Your task to perform on an android device: Go to calendar. Show me events next week Image 0: 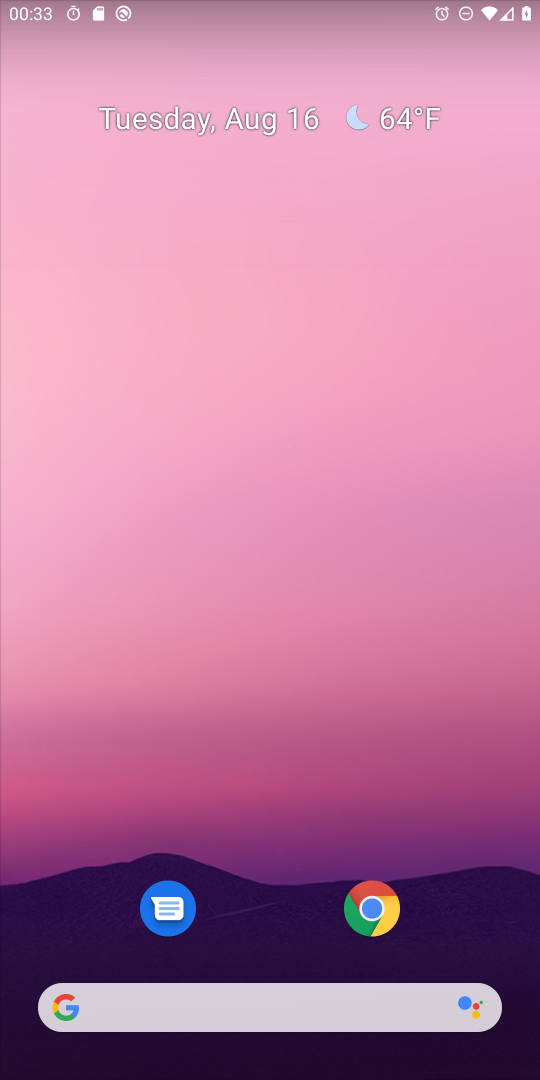
Step 0: click (250, 144)
Your task to perform on an android device: Go to calendar. Show me events next week Image 1: 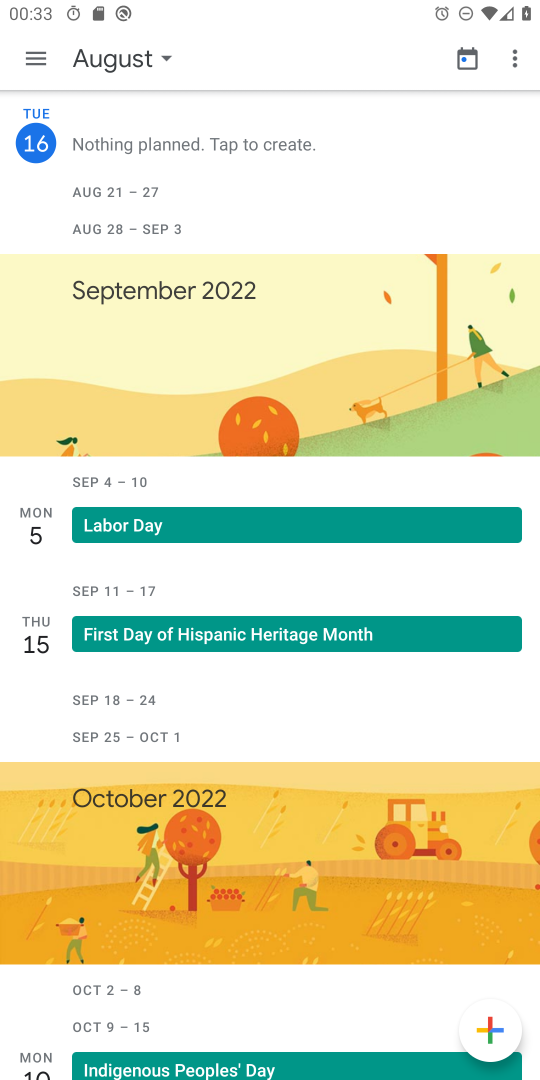
Step 1: click (128, 88)
Your task to perform on an android device: Go to calendar. Show me events next week Image 2: 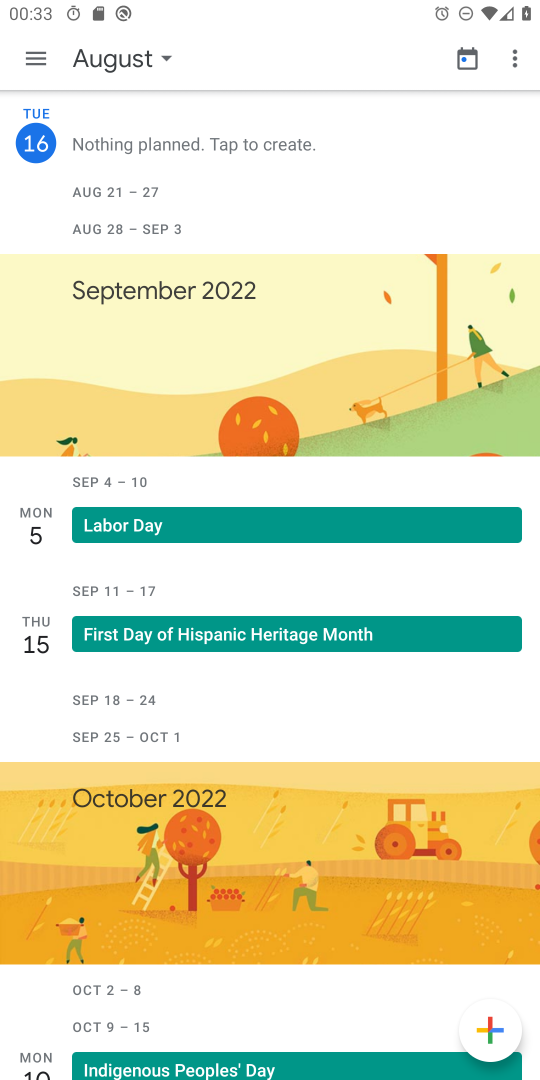
Step 2: click (135, 69)
Your task to perform on an android device: Go to calendar. Show me events next week Image 3: 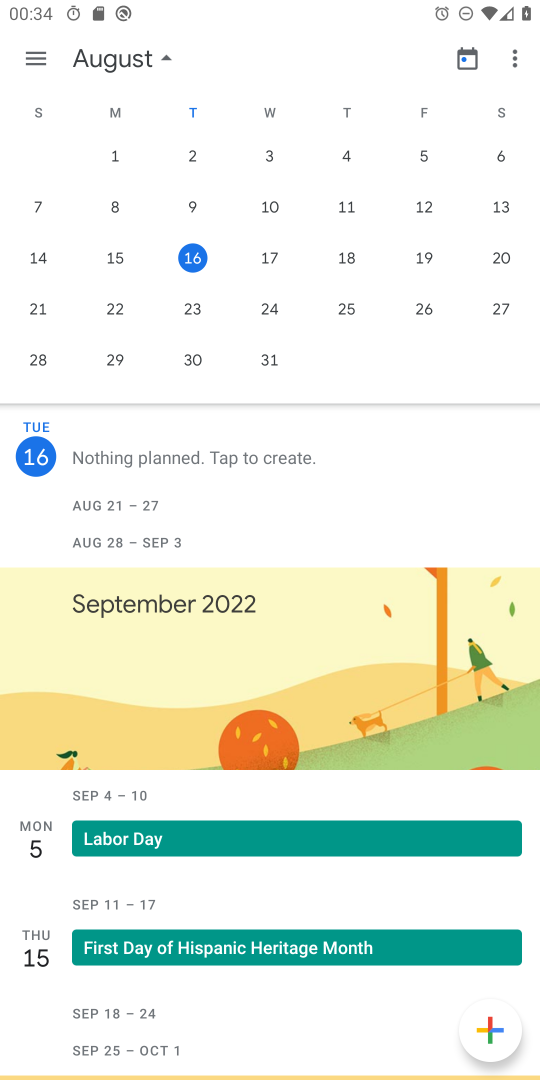
Step 3: click (257, 309)
Your task to perform on an android device: Go to calendar. Show me events next week Image 4: 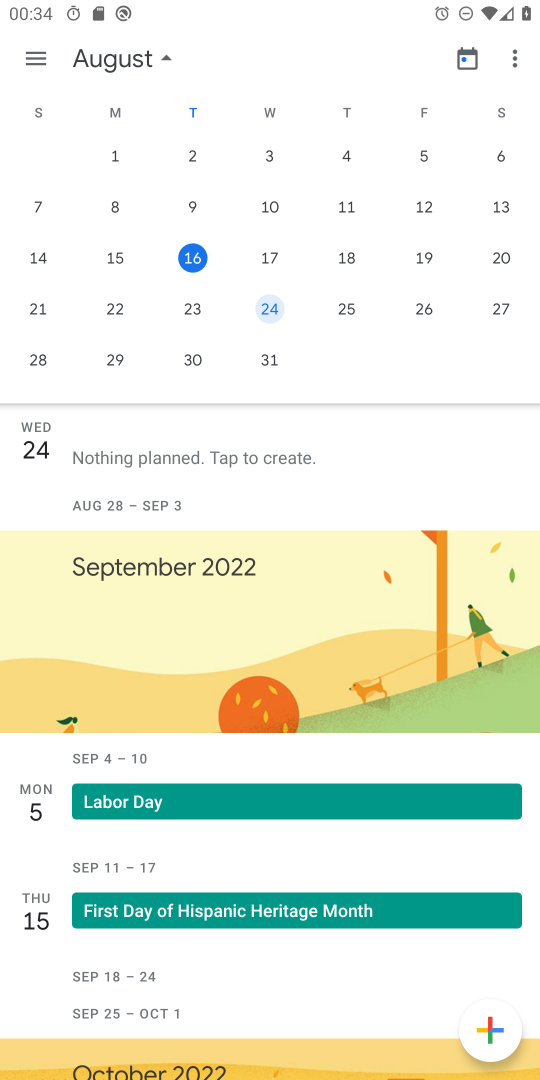
Step 4: task complete